Your task to perform on an android device: What's the news in Vietnam? Image 0: 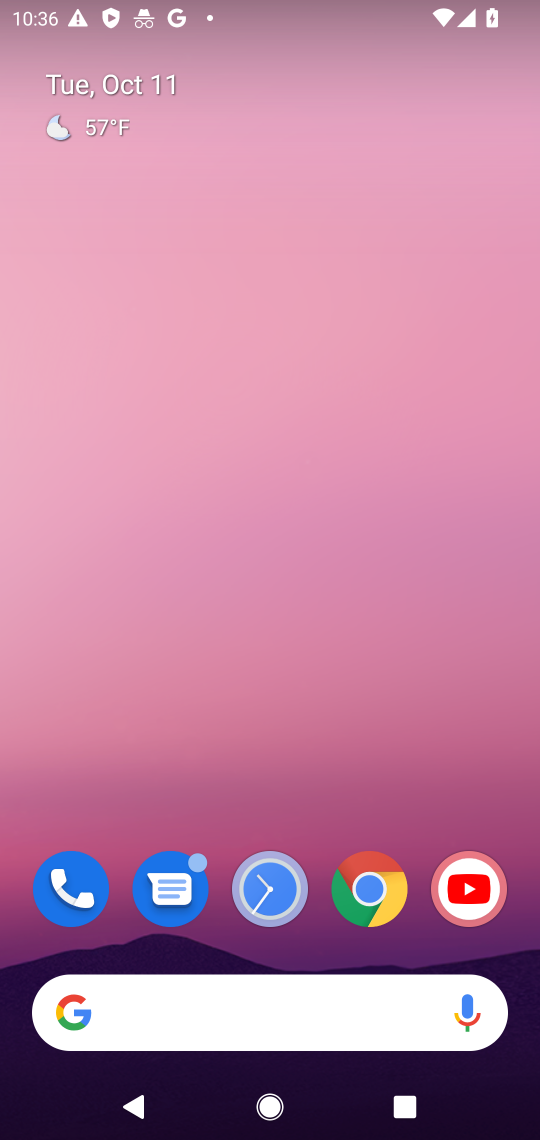
Step 0: click (148, 989)
Your task to perform on an android device: What's the news in Vietnam? Image 1: 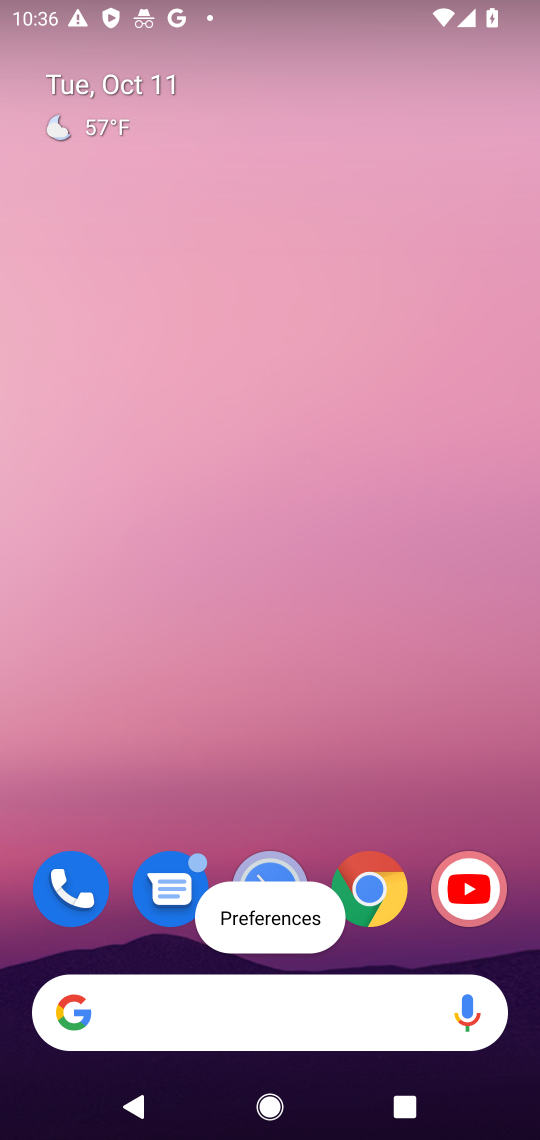
Step 1: click (190, 1017)
Your task to perform on an android device: What's the news in Vietnam? Image 2: 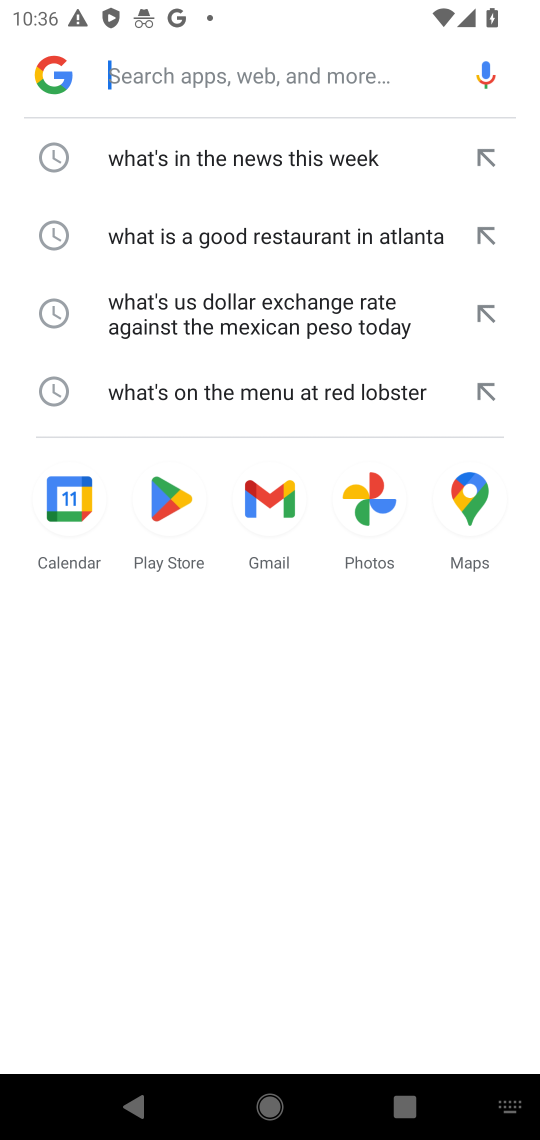
Step 2: click (146, 53)
Your task to perform on an android device: What's the news in Vietnam? Image 3: 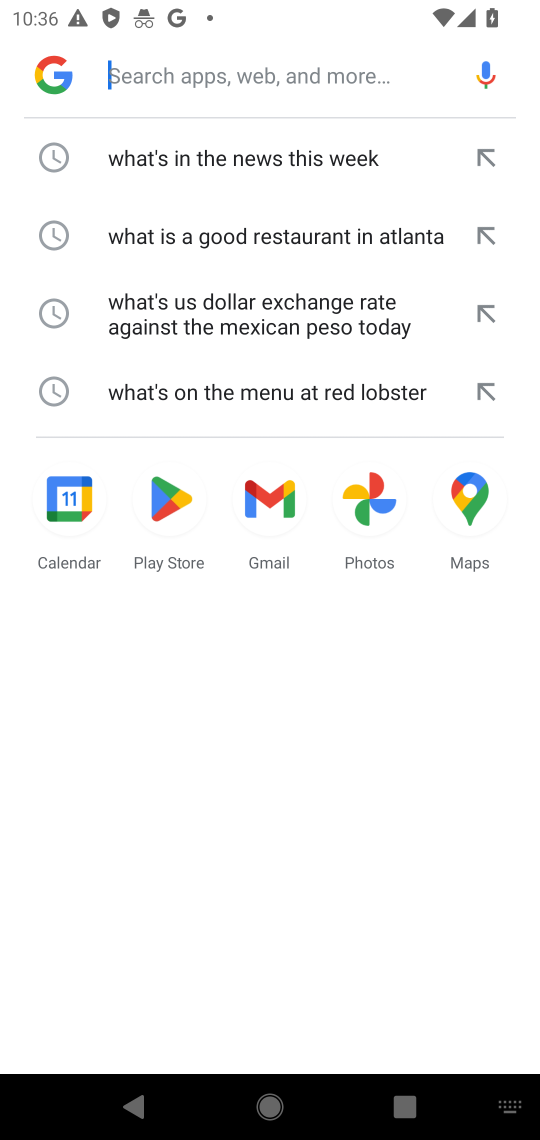
Step 3: type "What's the news in Vietnam?"
Your task to perform on an android device: What's the news in Vietnam? Image 4: 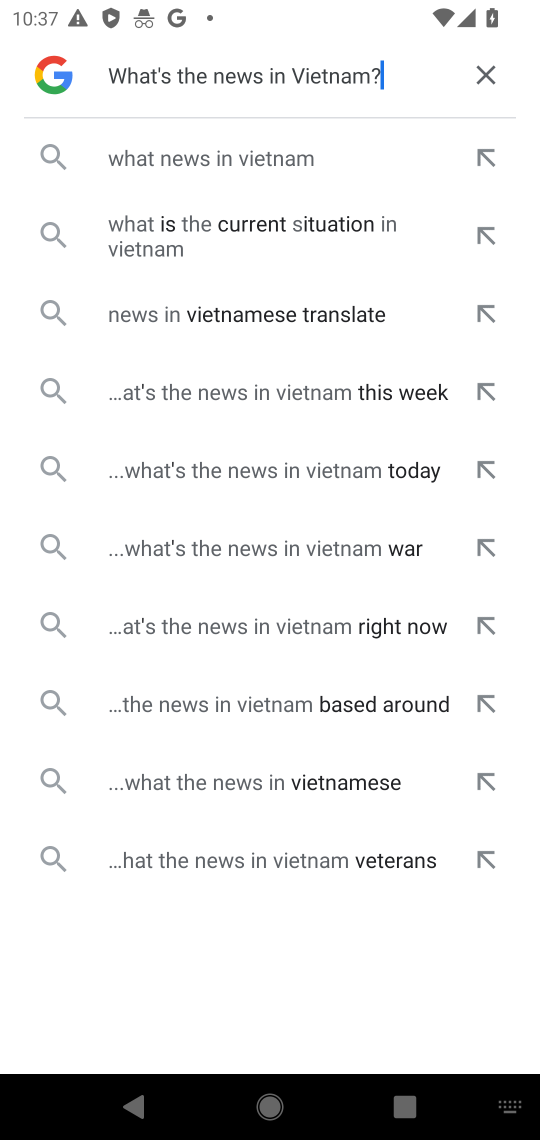
Step 4: click (195, 170)
Your task to perform on an android device: What's the news in Vietnam? Image 5: 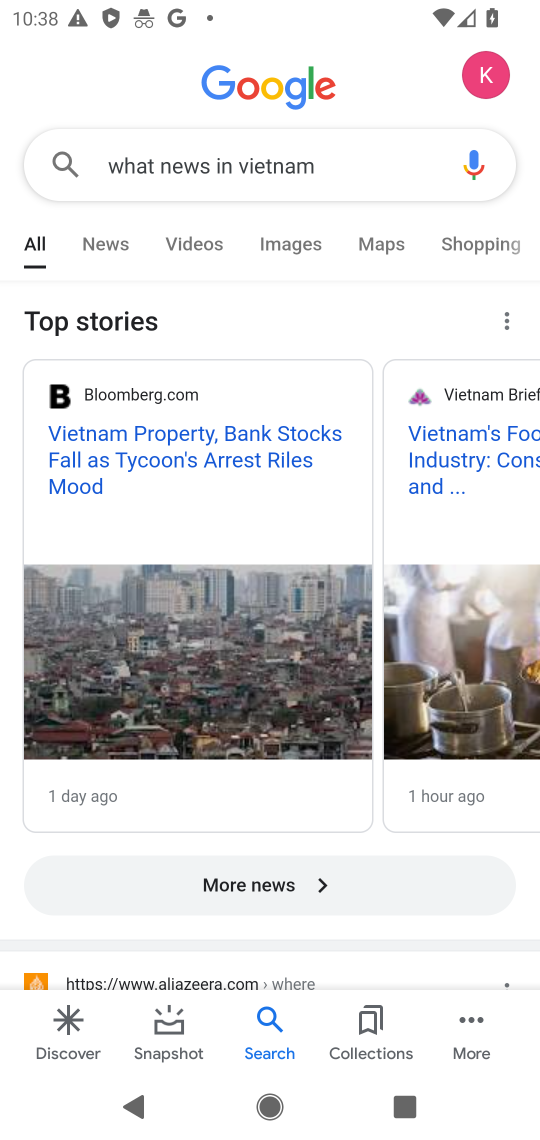
Step 5: task complete